Your task to perform on an android device: Go to Wikipedia Image 0: 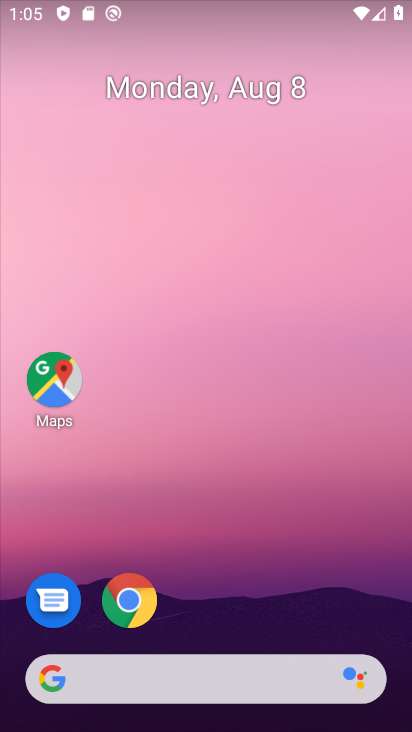
Step 0: press home button
Your task to perform on an android device: Go to Wikipedia Image 1: 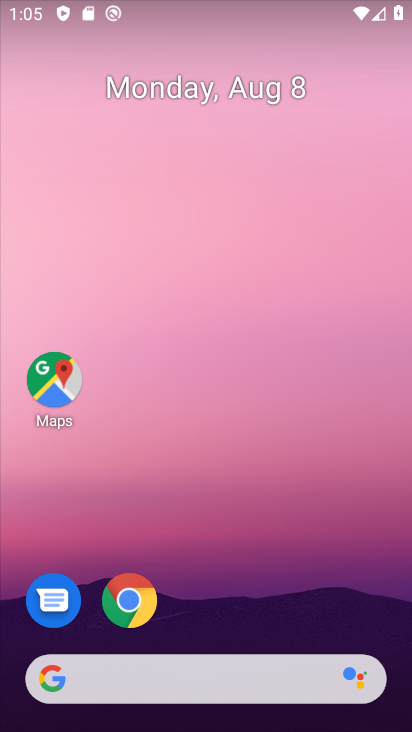
Step 1: drag from (283, 646) to (284, 184)
Your task to perform on an android device: Go to Wikipedia Image 2: 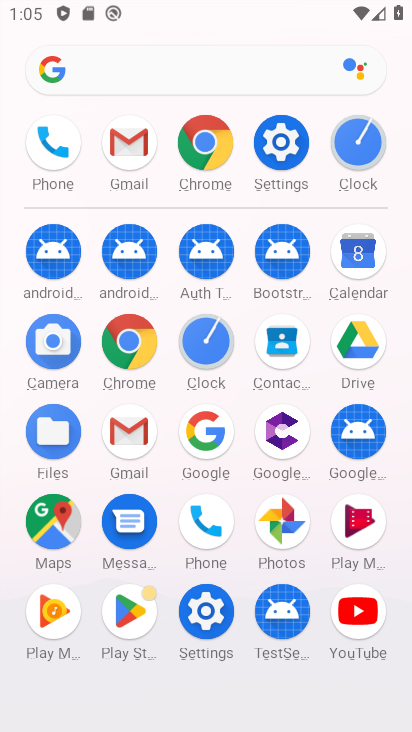
Step 2: click (343, 531)
Your task to perform on an android device: Go to Wikipedia Image 3: 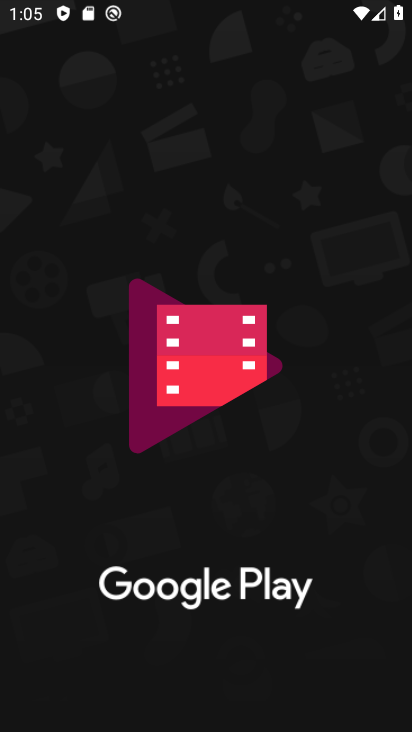
Step 3: press home button
Your task to perform on an android device: Go to Wikipedia Image 4: 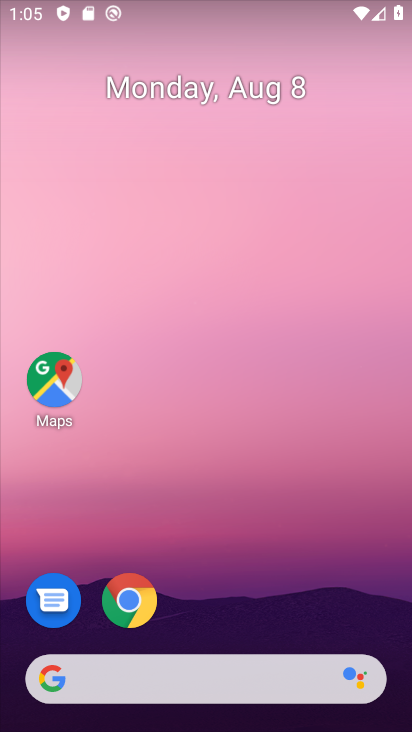
Step 4: drag from (222, 640) to (333, 168)
Your task to perform on an android device: Go to Wikipedia Image 5: 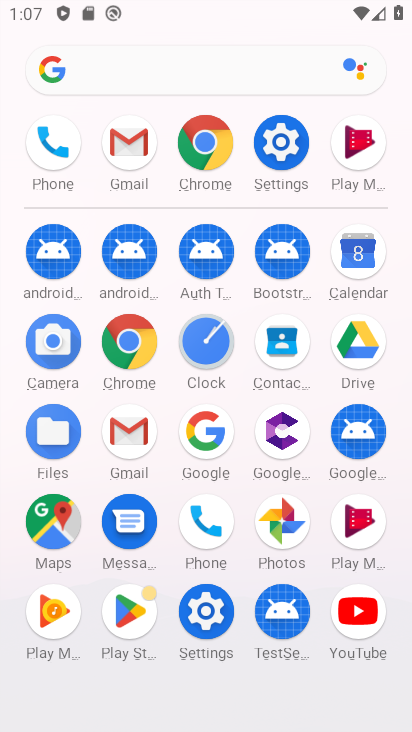
Step 5: click (208, 171)
Your task to perform on an android device: Go to Wikipedia Image 6: 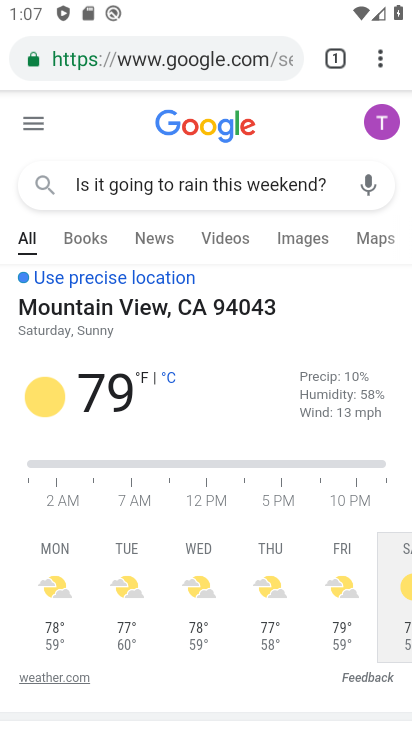
Step 6: click (258, 65)
Your task to perform on an android device: Go to Wikipedia Image 7: 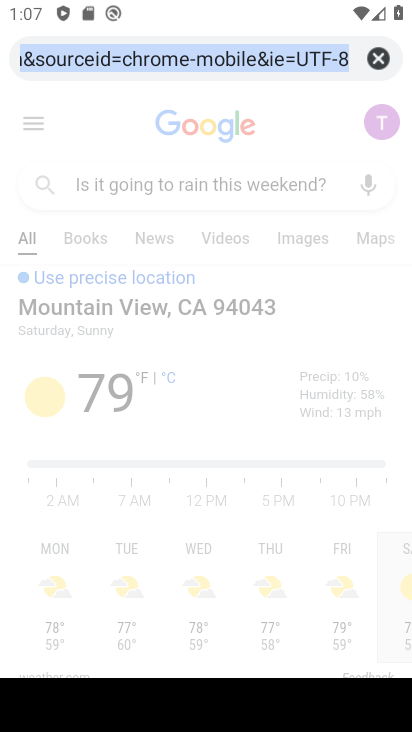
Step 7: type "Wikipedia"
Your task to perform on an android device: Go to Wikipedia Image 8: 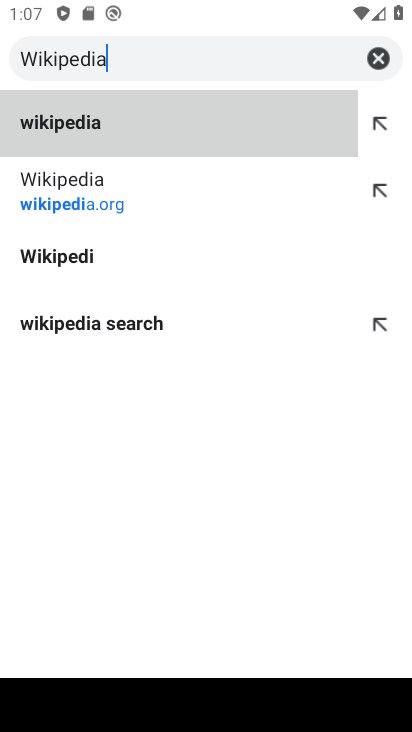
Step 8: type ""
Your task to perform on an android device: Go to Wikipedia Image 9: 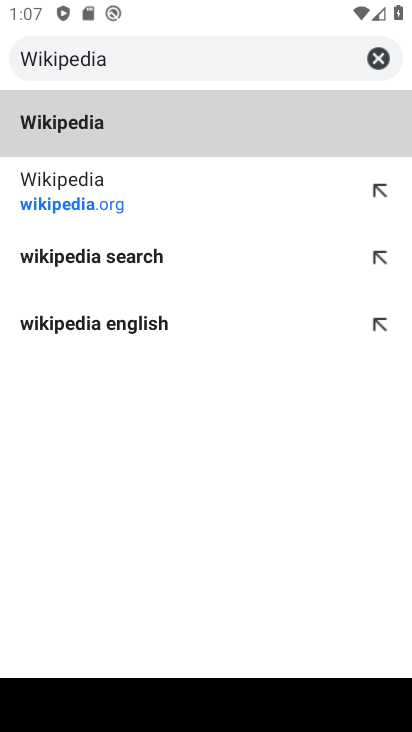
Step 9: click (63, 203)
Your task to perform on an android device: Go to Wikipedia Image 10: 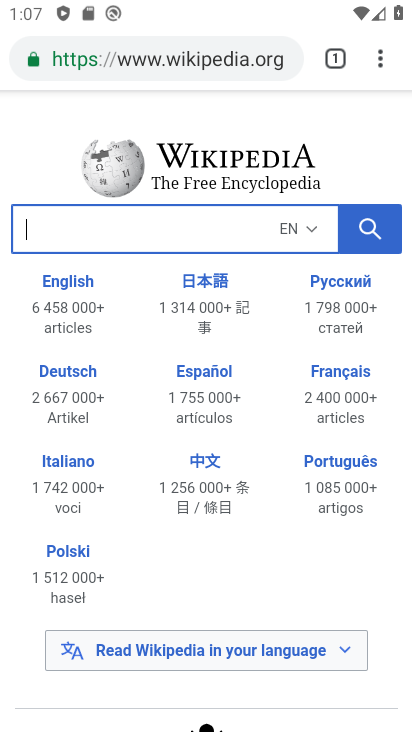
Step 10: task complete